Your task to perform on an android device: Is it going to rain tomorrow? Image 0: 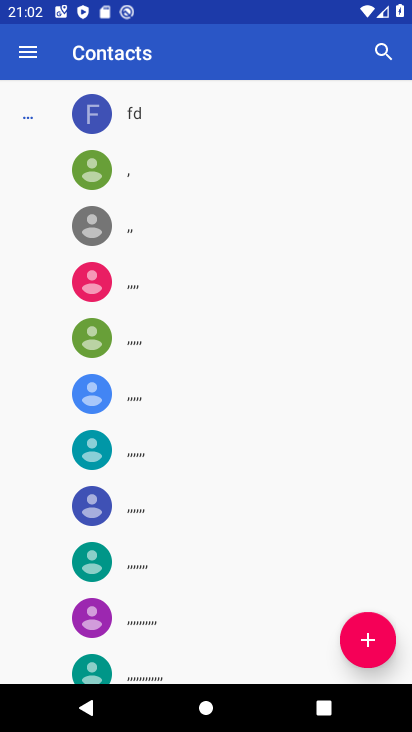
Step 0: press home button
Your task to perform on an android device: Is it going to rain tomorrow? Image 1: 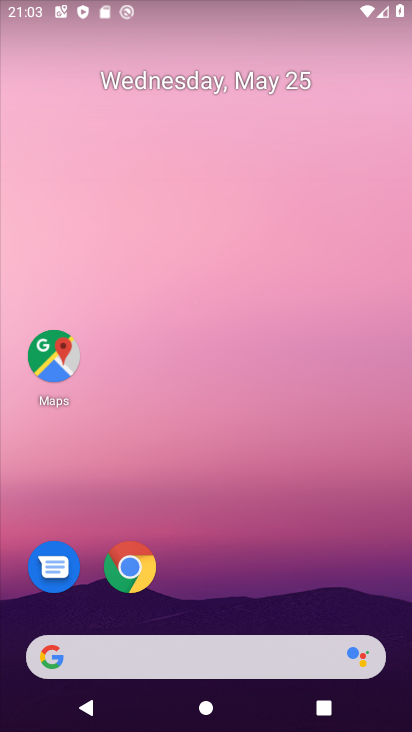
Step 1: click (222, 649)
Your task to perform on an android device: Is it going to rain tomorrow? Image 2: 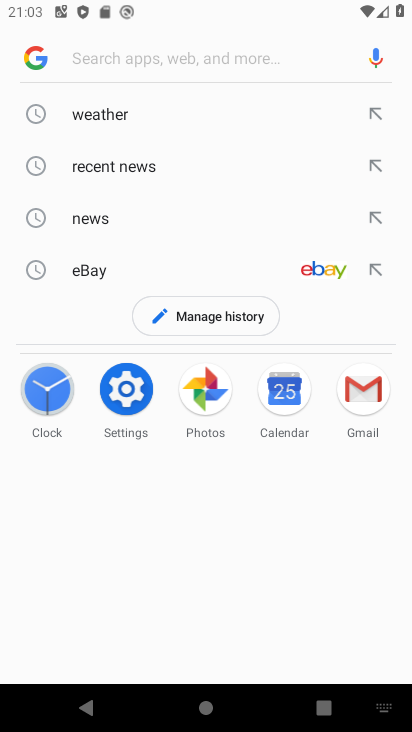
Step 2: click (105, 110)
Your task to perform on an android device: Is it going to rain tomorrow? Image 3: 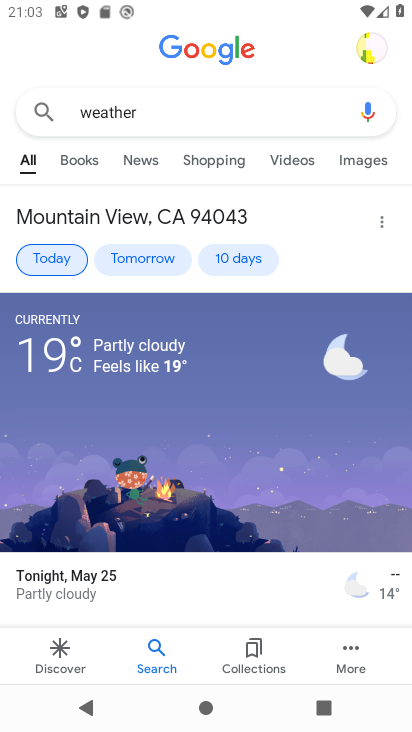
Step 3: click (65, 258)
Your task to perform on an android device: Is it going to rain tomorrow? Image 4: 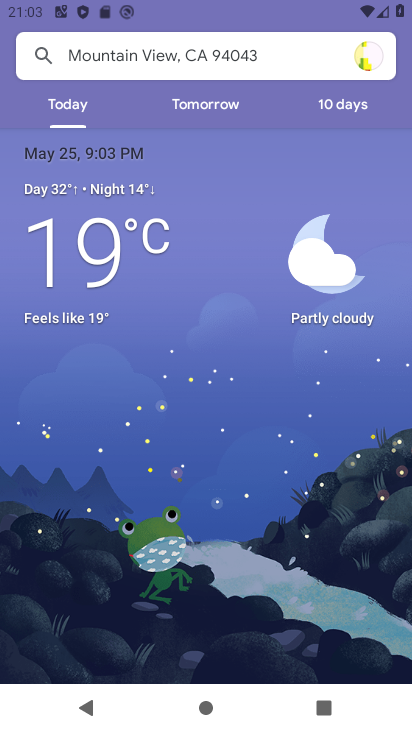
Step 4: click (206, 95)
Your task to perform on an android device: Is it going to rain tomorrow? Image 5: 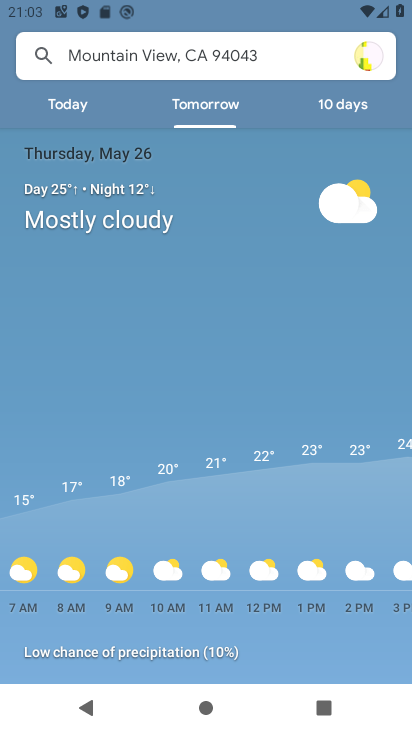
Step 5: task complete